Your task to perform on an android device: turn on bluetooth scan Image 0: 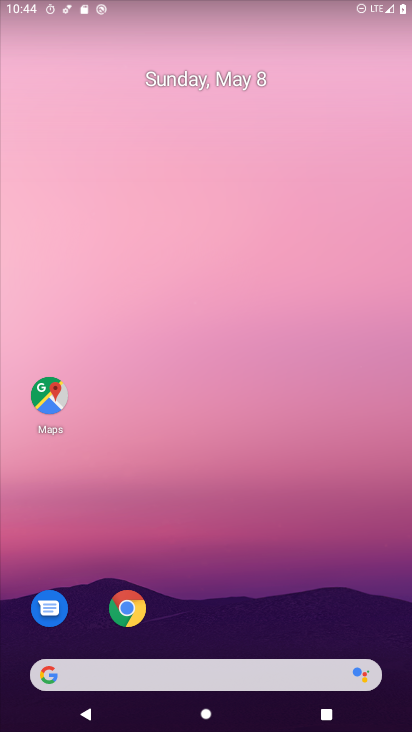
Step 0: drag from (193, 642) to (224, 284)
Your task to perform on an android device: turn on bluetooth scan Image 1: 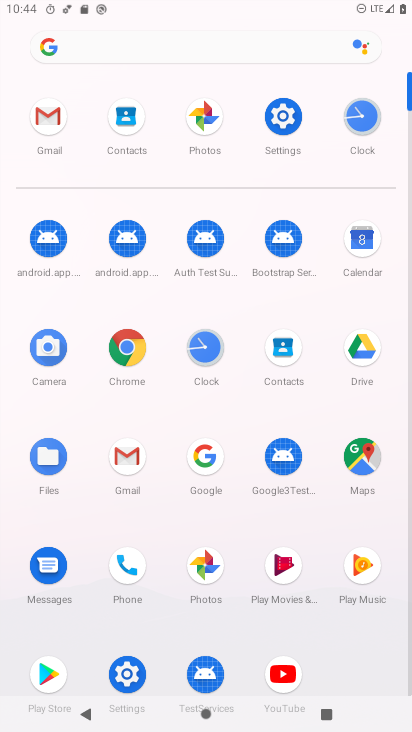
Step 1: click (285, 133)
Your task to perform on an android device: turn on bluetooth scan Image 2: 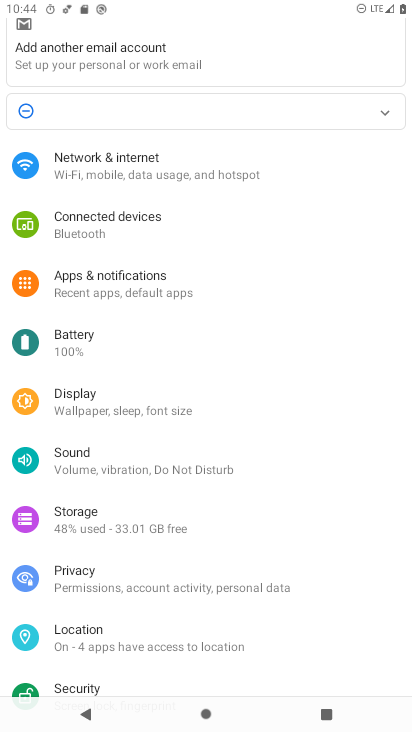
Step 2: click (147, 643)
Your task to perform on an android device: turn on bluetooth scan Image 3: 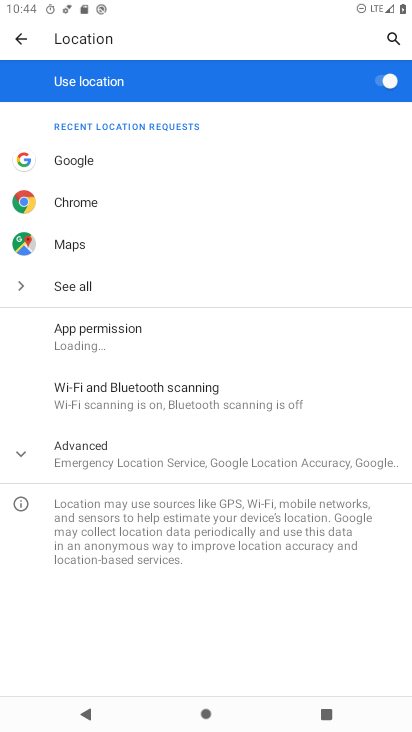
Step 3: click (147, 400)
Your task to perform on an android device: turn on bluetooth scan Image 4: 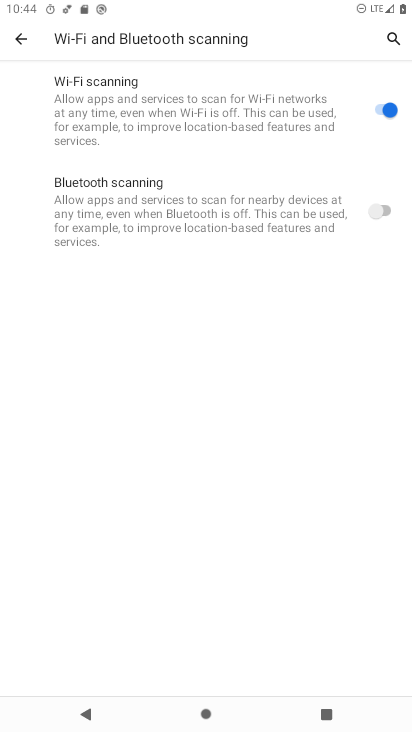
Step 4: click (382, 217)
Your task to perform on an android device: turn on bluetooth scan Image 5: 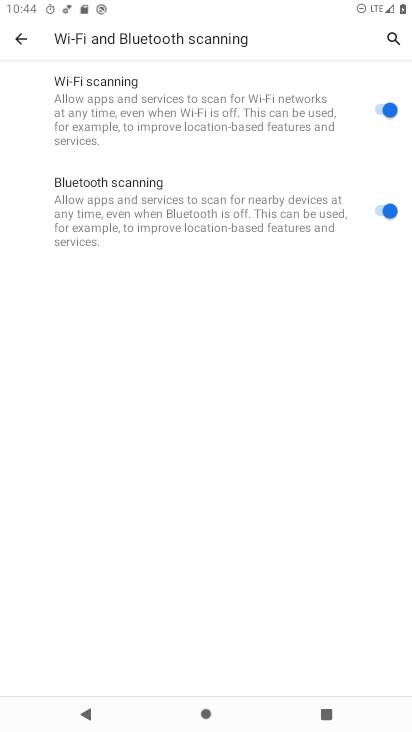
Step 5: task complete